Your task to perform on an android device: snooze an email in the gmail app Image 0: 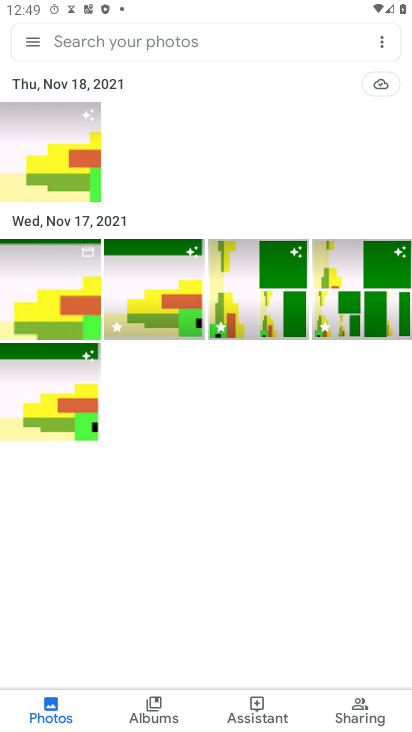
Step 0: press home button
Your task to perform on an android device: snooze an email in the gmail app Image 1: 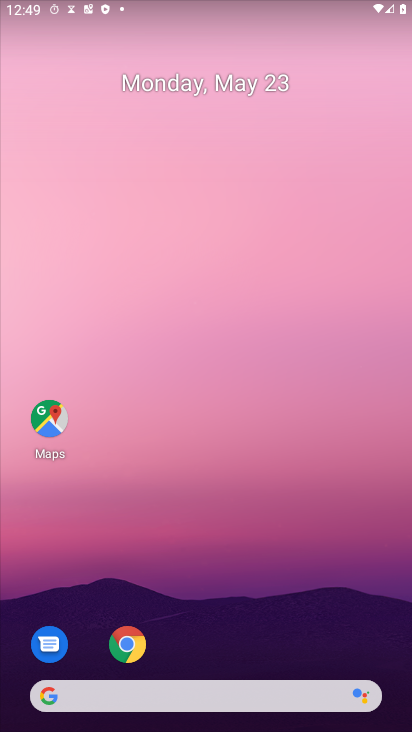
Step 1: drag from (260, 637) to (317, 75)
Your task to perform on an android device: snooze an email in the gmail app Image 2: 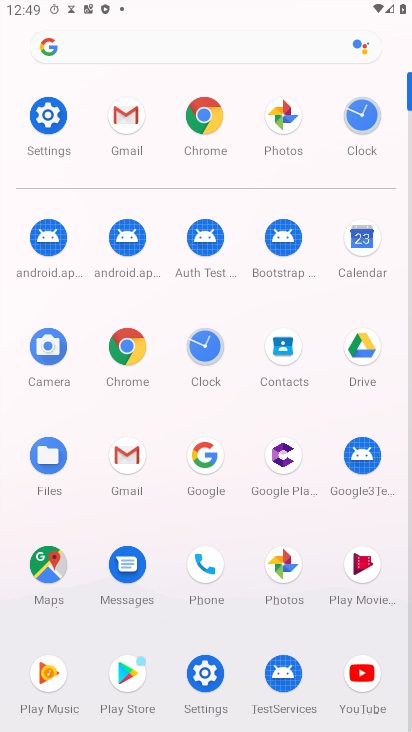
Step 2: click (121, 111)
Your task to perform on an android device: snooze an email in the gmail app Image 3: 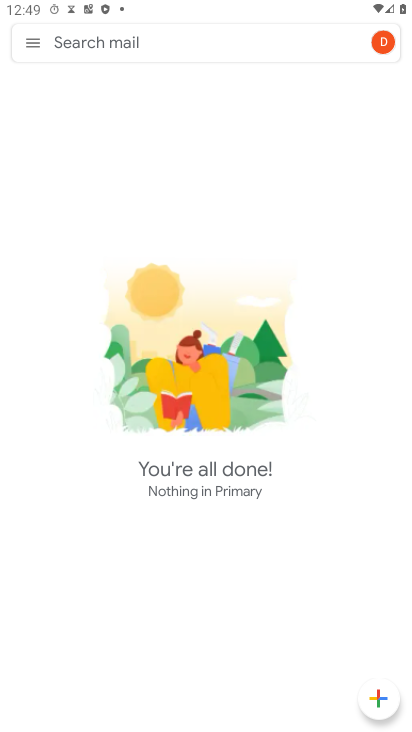
Step 3: click (35, 41)
Your task to perform on an android device: snooze an email in the gmail app Image 4: 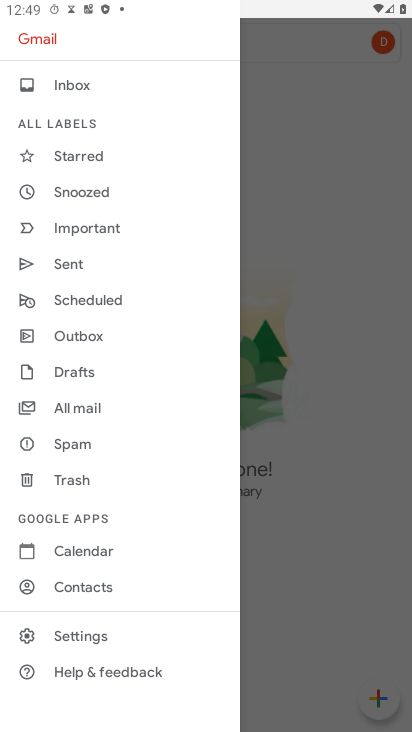
Step 4: click (84, 410)
Your task to perform on an android device: snooze an email in the gmail app Image 5: 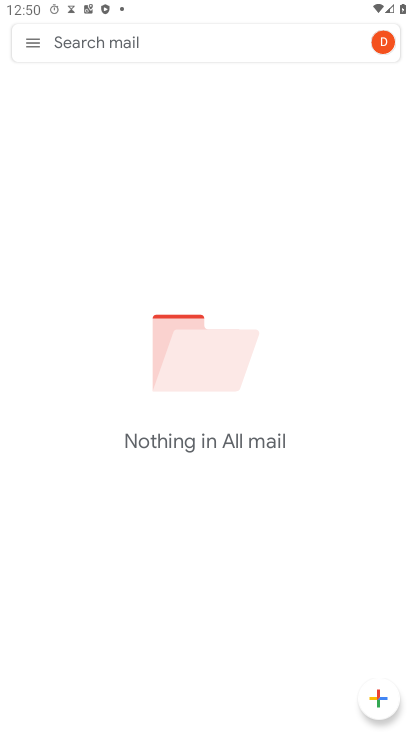
Step 5: task complete